Your task to perform on an android device: Show me recent news Image 0: 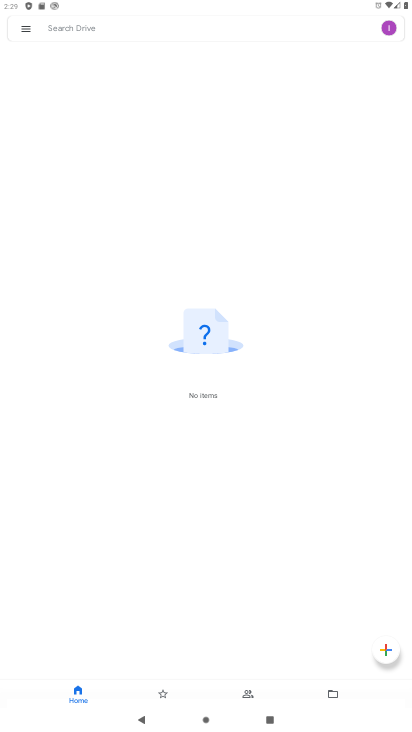
Step 0: press home button
Your task to perform on an android device: Show me recent news Image 1: 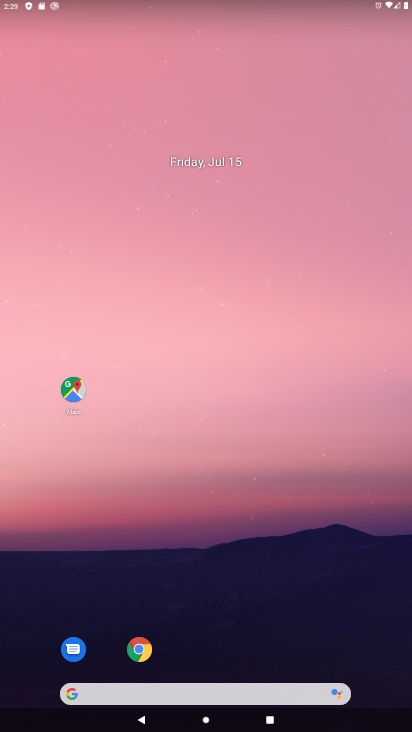
Step 1: click (120, 689)
Your task to perform on an android device: Show me recent news Image 2: 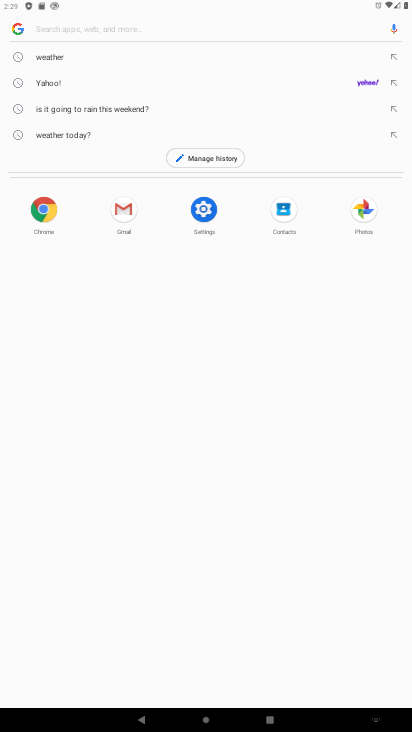
Step 2: click (22, 27)
Your task to perform on an android device: Show me recent news Image 3: 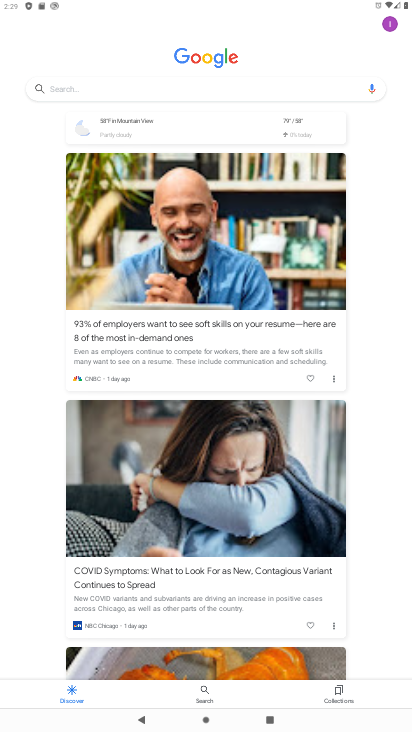
Step 3: task complete